Your task to perform on an android device: Open Yahoo.com Image 0: 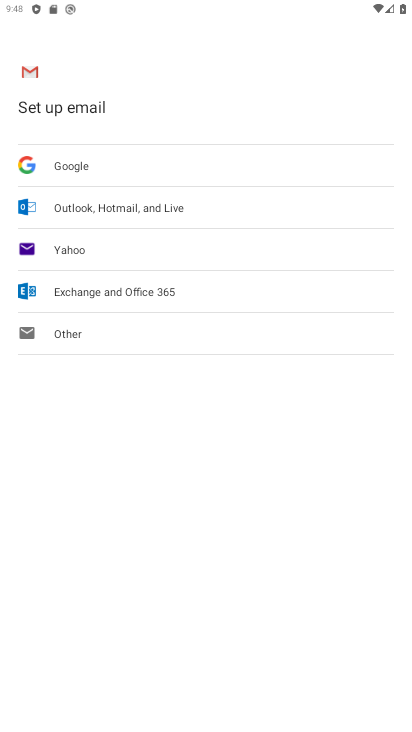
Step 0: press home button
Your task to perform on an android device: Open Yahoo.com Image 1: 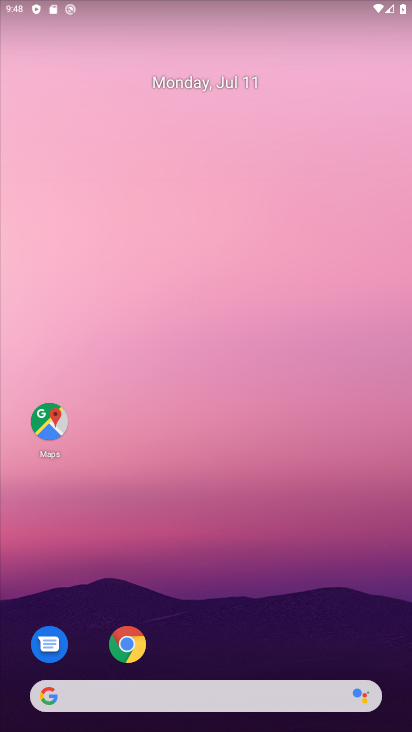
Step 1: click (124, 645)
Your task to perform on an android device: Open Yahoo.com Image 2: 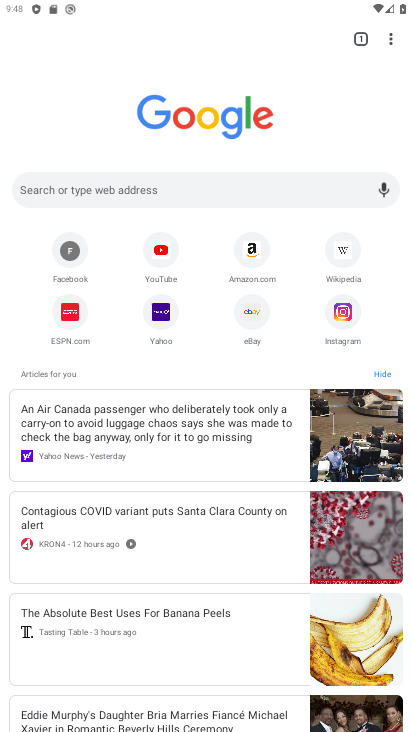
Step 2: click (163, 317)
Your task to perform on an android device: Open Yahoo.com Image 3: 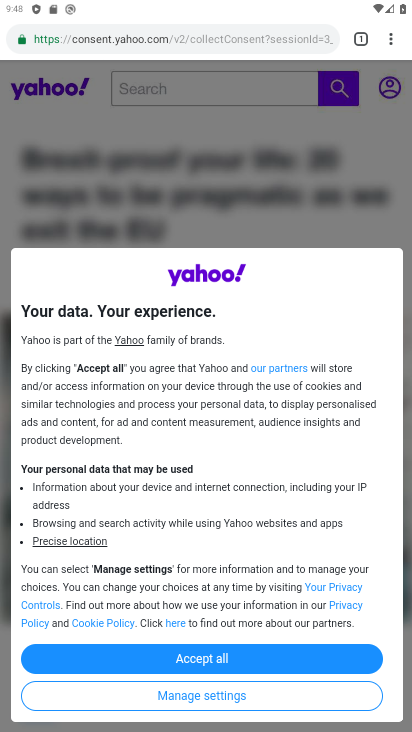
Step 3: task complete